Your task to perform on an android device: Search for pizza restaurants on Maps Image 0: 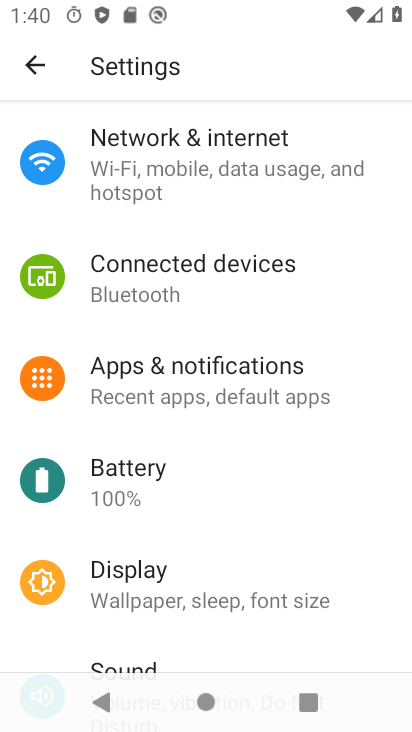
Step 0: press home button
Your task to perform on an android device: Search for pizza restaurants on Maps Image 1: 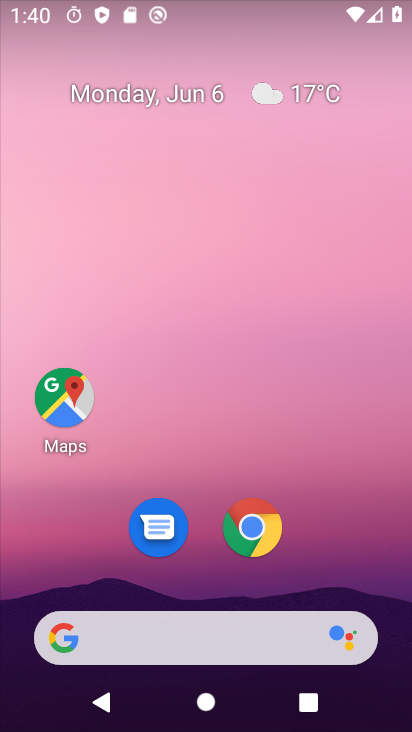
Step 1: drag from (234, 712) to (239, 93)
Your task to perform on an android device: Search for pizza restaurants on Maps Image 2: 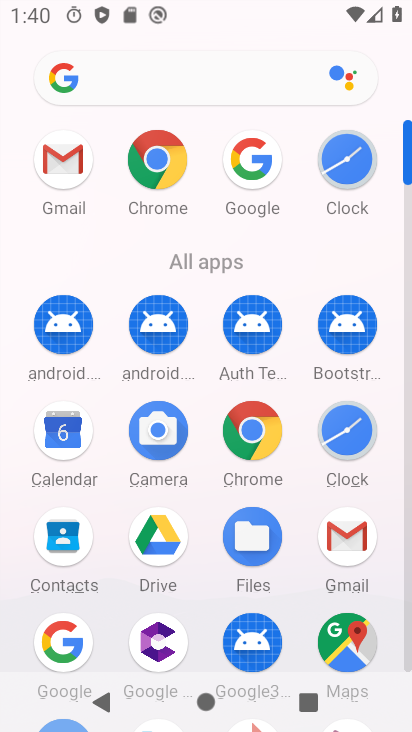
Step 2: click (344, 641)
Your task to perform on an android device: Search for pizza restaurants on Maps Image 3: 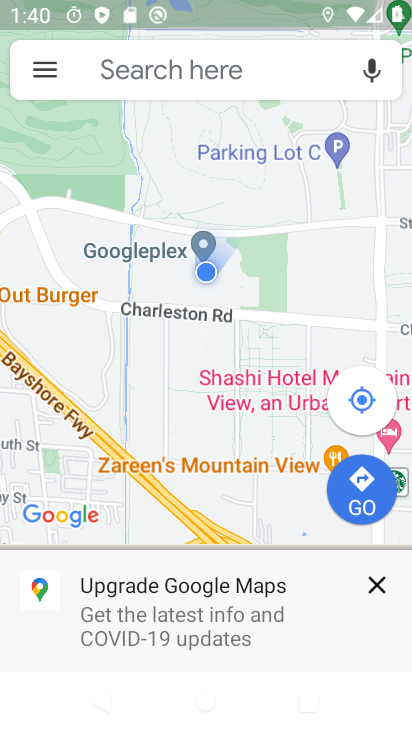
Step 3: click (215, 75)
Your task to perform on an android device: Search for pizza restaurants on Maps Image 4: 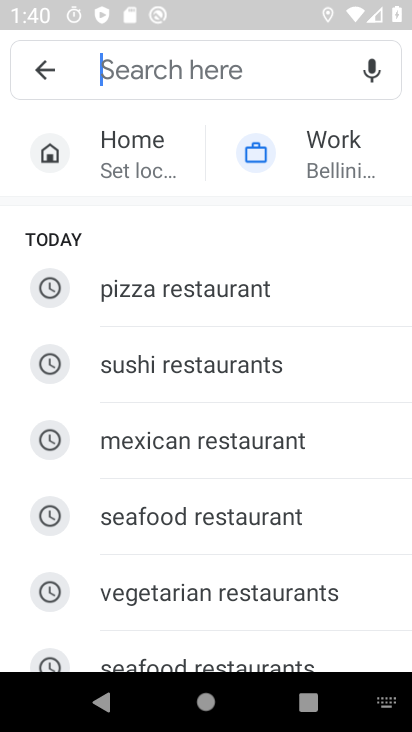
Step 4: type "pizza restaurants"
Your task to perform on an android device: Search for pizza restaurants on Maps Image 5: 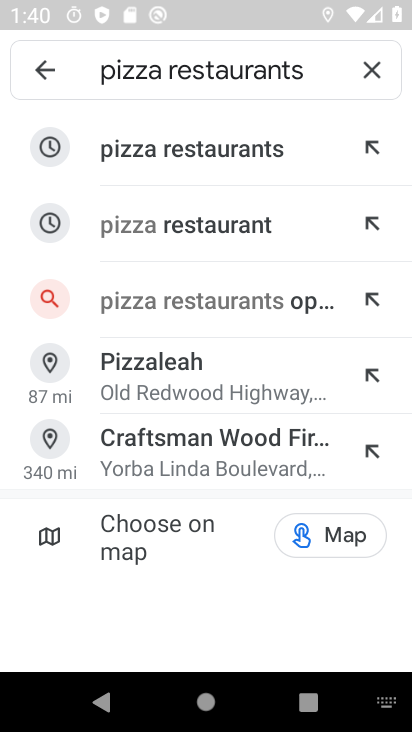
Step 5: click (186, 156)
Your task to perform on an android device: Search for pizza restaurants on Maps Image 6: 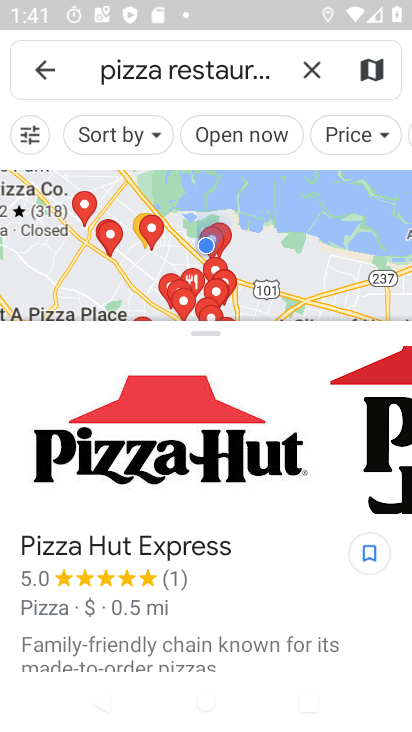
Step 6: task complete